Your task to perform on an android device: turn off improve location accuracy Image 0: 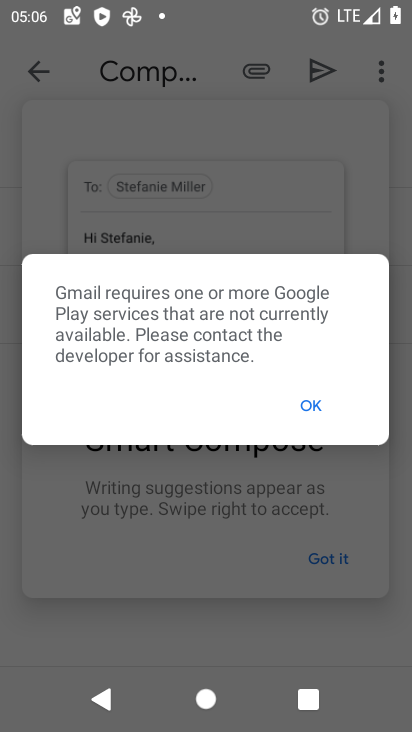
Step 0: press home button
Your task to perform on an android device: turn off improve location accuracy Image 1: 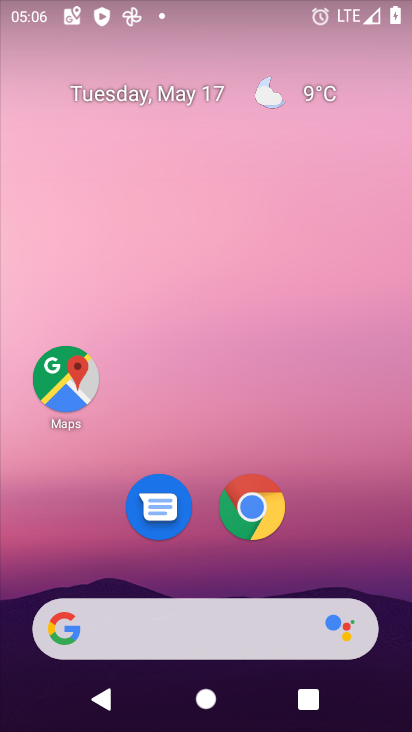
Step 1: drag from (350, 557) to (281, 12)
Your task to perform on an android device: turn off improve location accuracy Image 2: 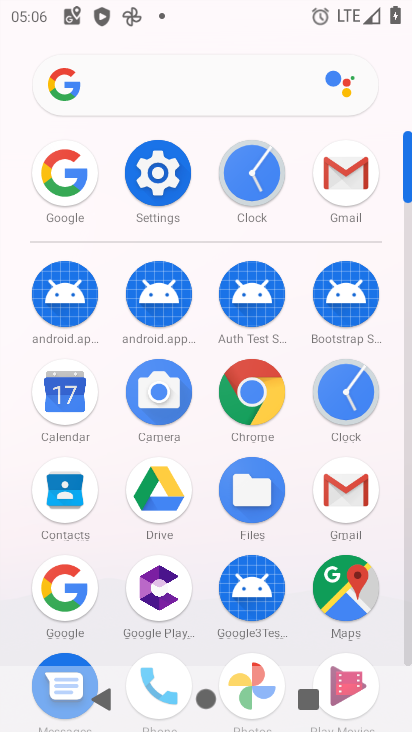
Step 2: click (176, 182)
Your task to perform on an android device: turn off improve location accuracy Image 3: 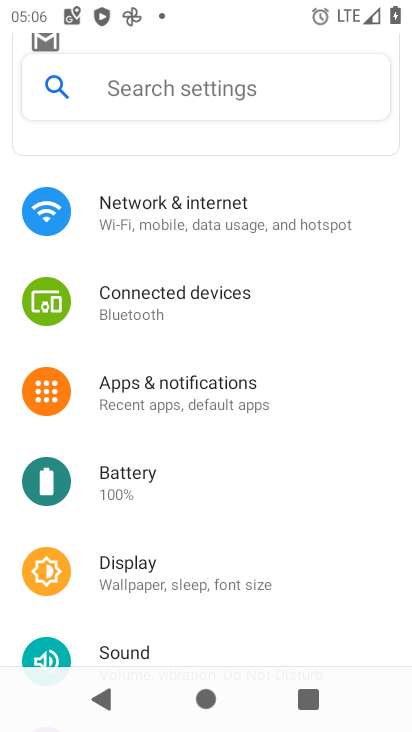
Step 3: drag from (244, 556) to (222, 182)
Your task to perform on an android device: turn off improve location accuracy Image 4: 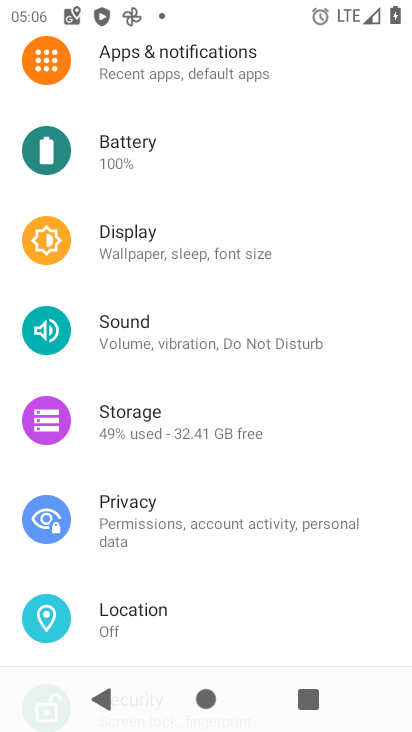
Step 4: click (210, 602)
Your task to perform on an android device: turn off improve location accuracy Image 5: 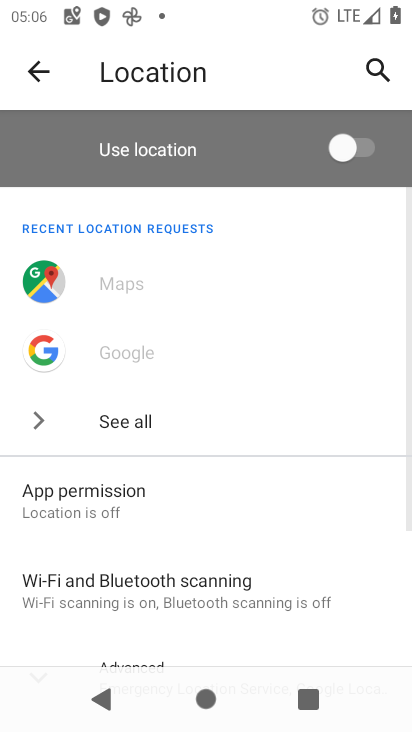
Step 5: drag from (236, 520) to (221, 181)
Your task to perform on an android device: turn off improve location accuracy Image 6: 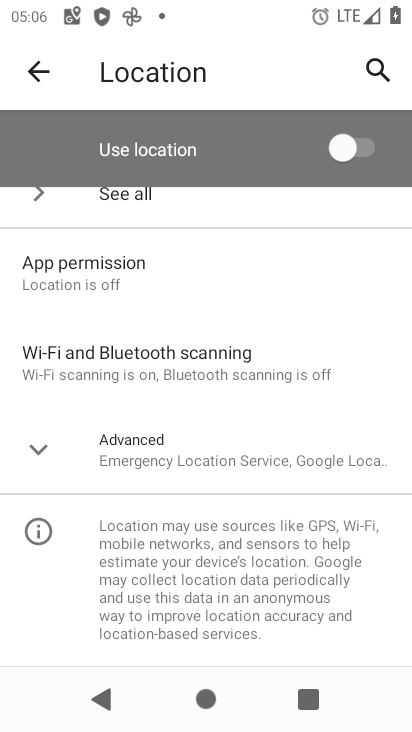
Step 6: click (193, 445)
Your task to perform on an android device: turn off improve location accuracy Image 7: 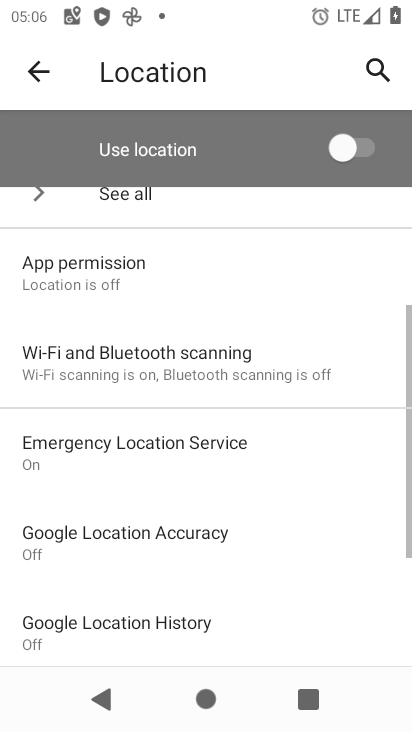
Step 7: drag from (257, 517) to (248, 266)
Your task to perform on an android device: turn off improve location accuracy Image 8: 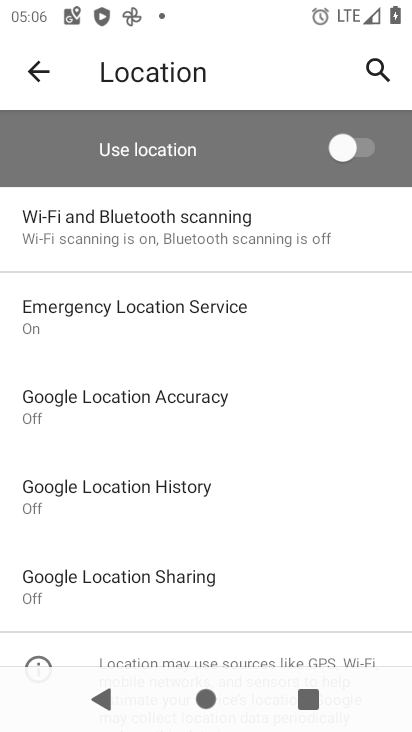
Step 8: click (189, 386)
Your task to perform on an android device: turn off improve location accuracy Image 9: 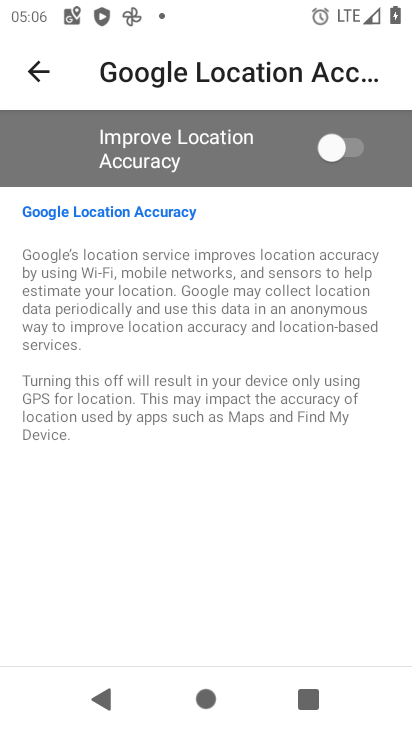
Step 9: task complete